Your task to perform on an android device: open app "Walmart Shopping & Grocery" Image 0: 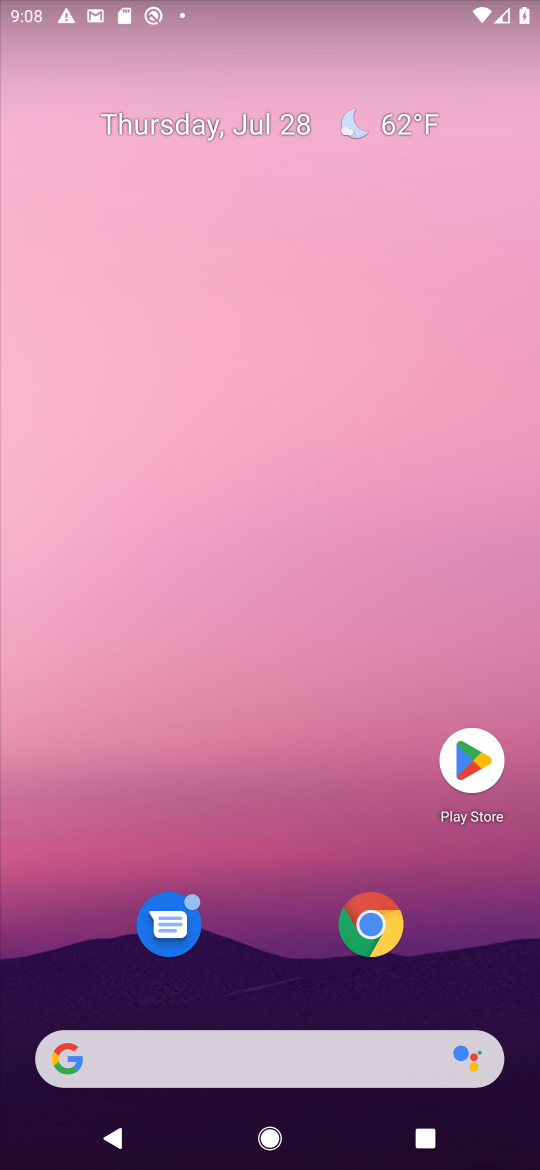
Step 0: press home button
Your task to perform on an android device: open app "Walmart Shopping & Grocery" Image 1: 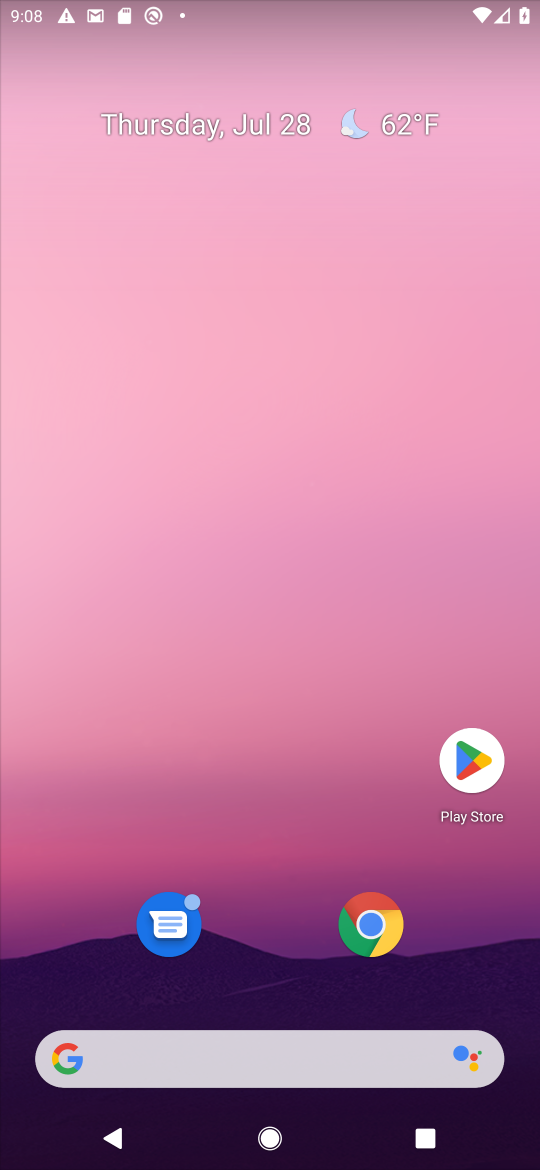
Step 1: click (476, 773)
Your task to perform on an android device: open app "Walmart Shopping & Grocery" Image 2: 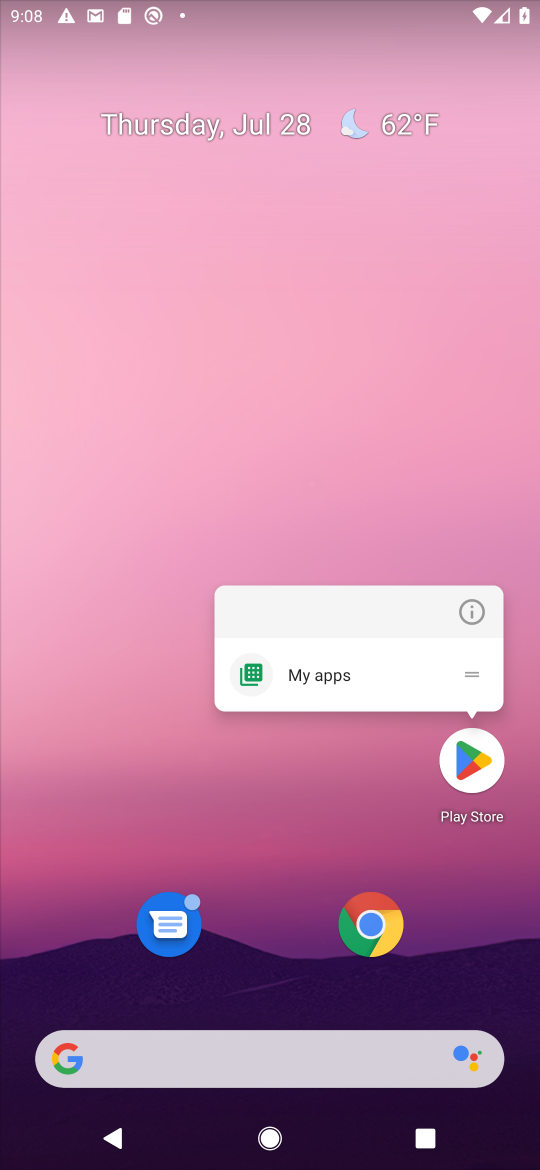
Step 2: click (479, 751)
Your task to perform on an android device: open app "Walmart Shopping & Grocery" Image 3: 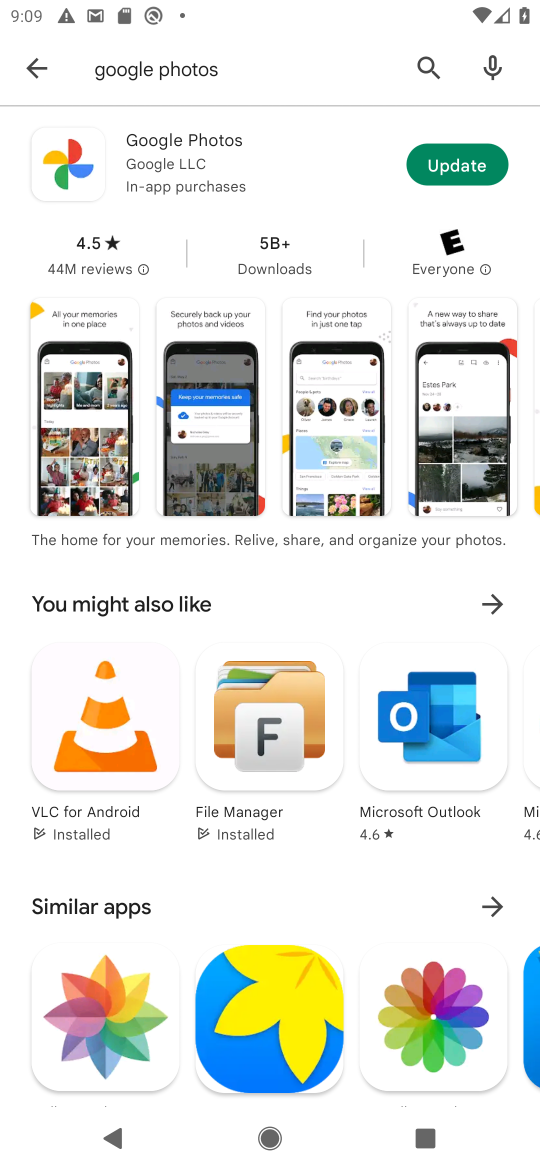
Step 3: click (428, 56)
Your task to perform on an android device: open app "Walmart Shopping & Grocery" Image 4: 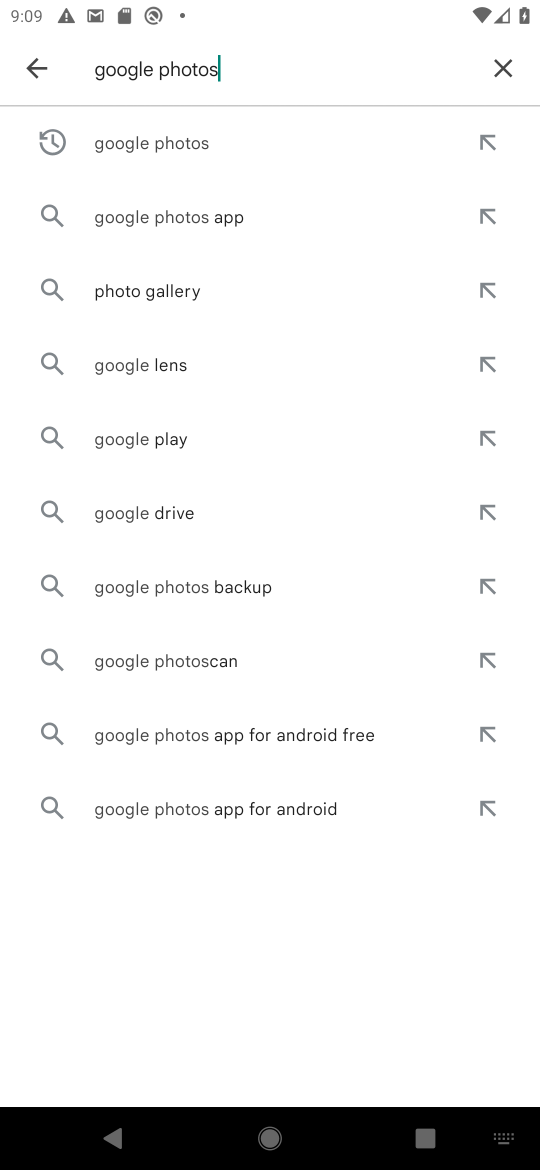
Step 4: click (504, 52)
Your task to perform on an android device: open app "Walmart Shopping & Grocery" Image 5: 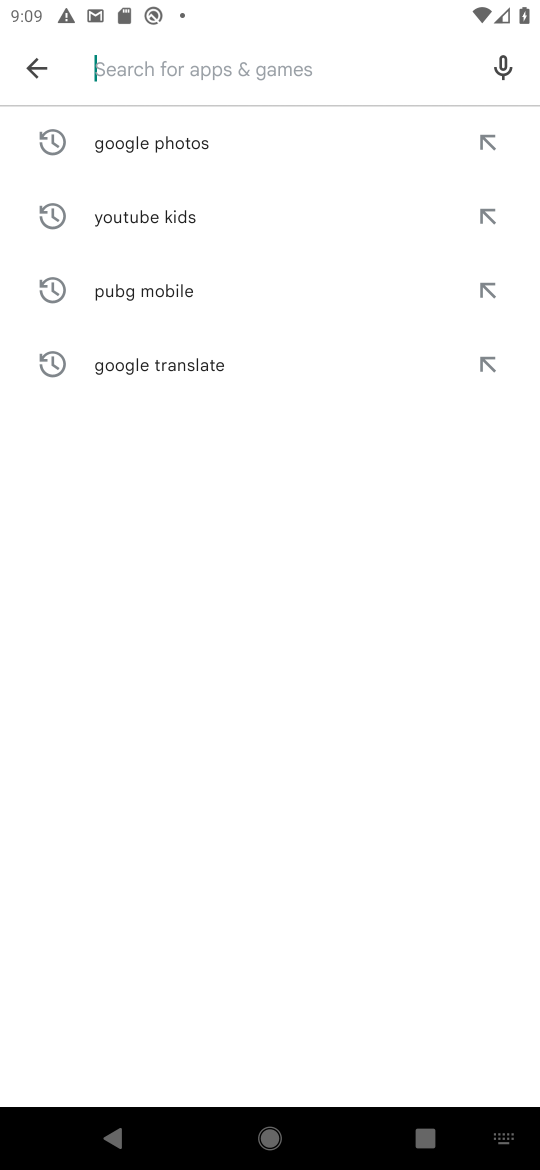
Step 5: type "Walmart Shopping & Grocery"
Your task to perform on an android device: open app "Walmart Shopping & Grocery" Image 6: 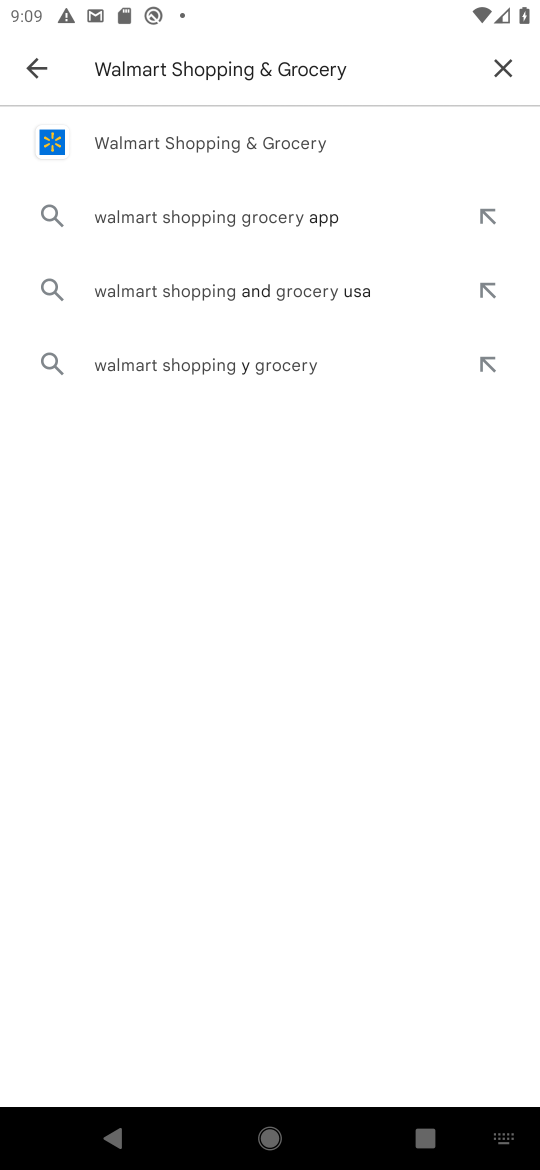
Step 6: click (228, 141)
Your task to perform on an android device: open app "Walmart Shopping & Grocery" Image 7: 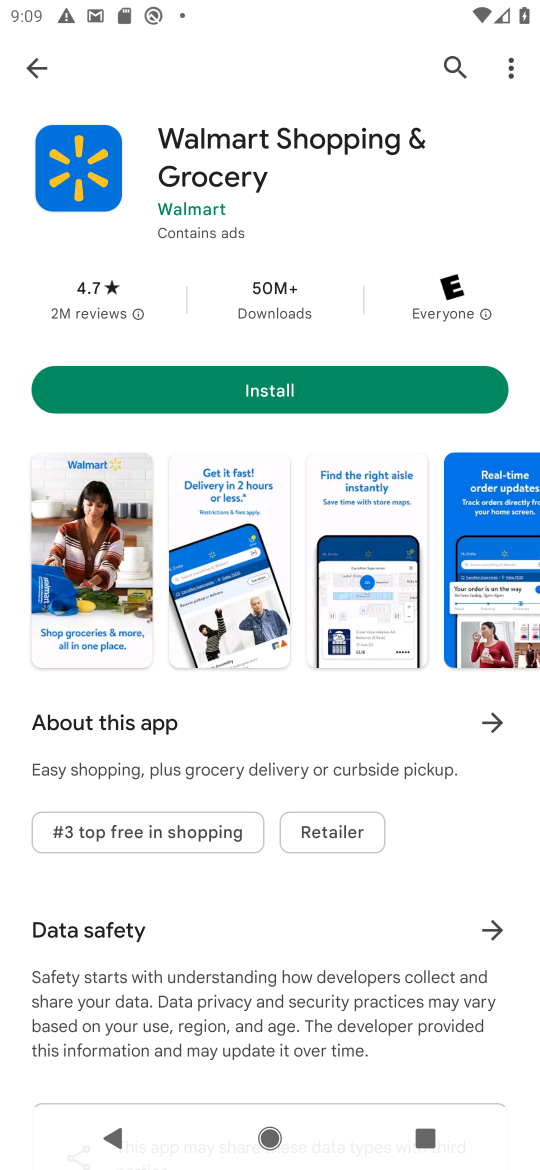
Step 7: task complete